Your task to perform on an android device: Open Yahoo.com Image 0: 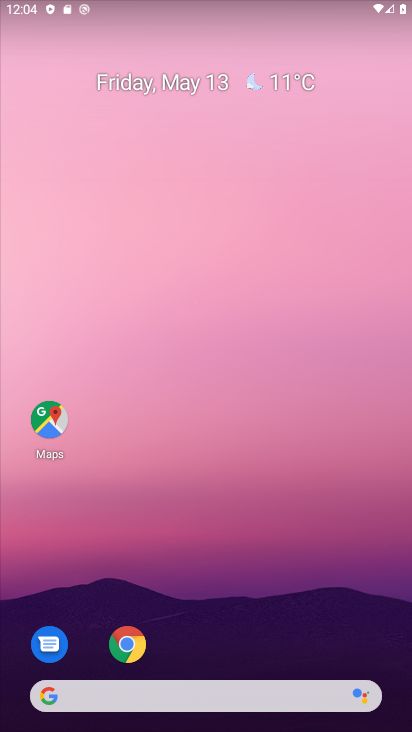
Step 0: click (132, 646)
Your task to perform on an android device: Open Yahoo.com Image 1: 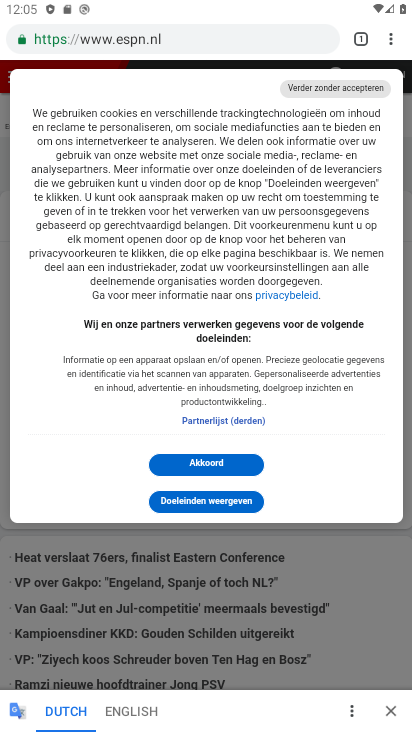
Step 1: click (391, 44)
Your task to perform on an android device: Open Yahoo.com Image 2: 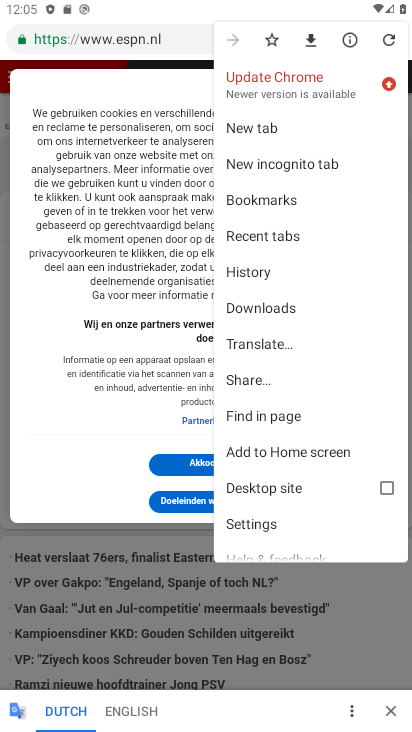
Step 2: click (264, 126)
Your task to perform on an android device: Open Yahoo.com Image 3: 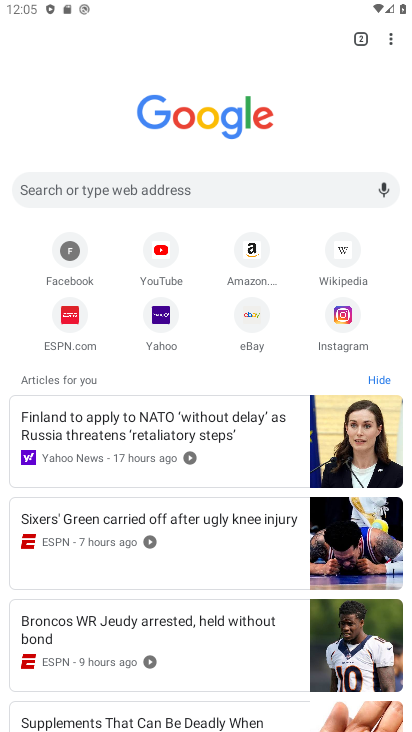
Step 3: click (163, 324)
Your task to perform on an android device: Open Yahoo.com Image 4: 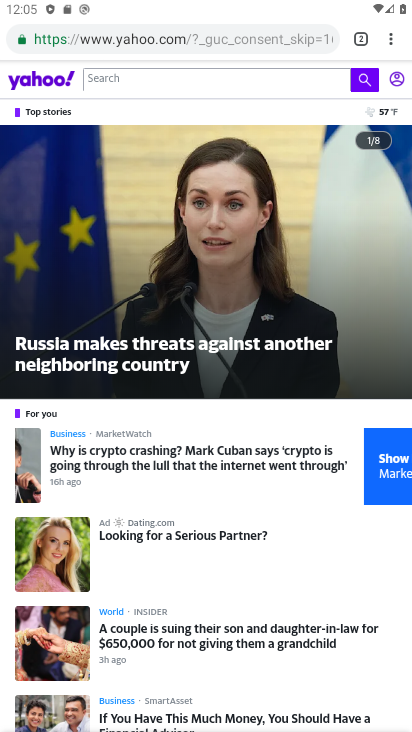
Step 4: task complete